Your task to perform on an android device: Search for "razer blade" on walmart, select the first entry, add it to the cart, then select checkout. Image 0: 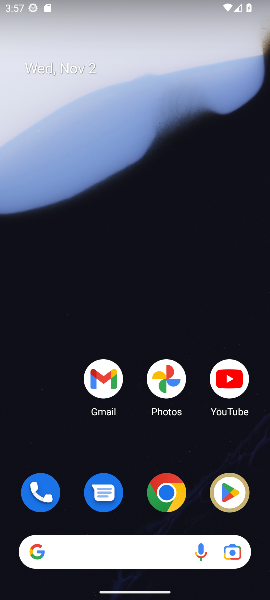
Step 0: click (167, 493)
Your task to perform on an android device: Search for "razer blade" on walmart, select the first entry, add it to the cart, then select checkout. Image 1: 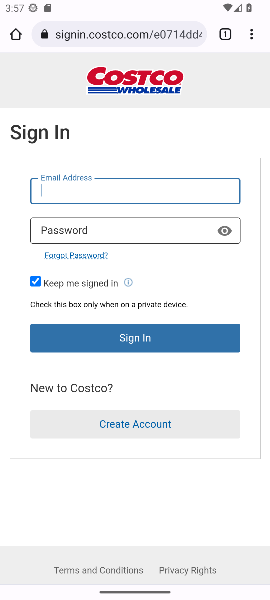
Step 1: click (128, 23)
Your task to perform on an android device: Search for "razer blade" on walmart, select the first entry, add it to the cart, then select checkout. Image 2: 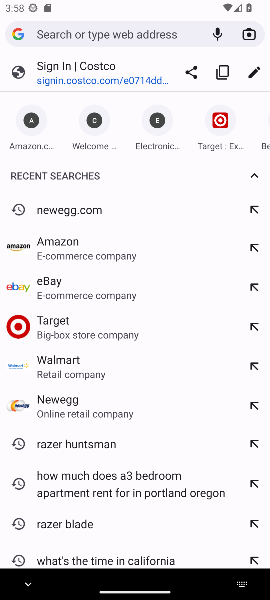
Step 2: type "walmart"
Your task to perform on an android device: Search for "razer blade" on walmart, select the first entry, add it to the cart, then select checkout. Image 3: 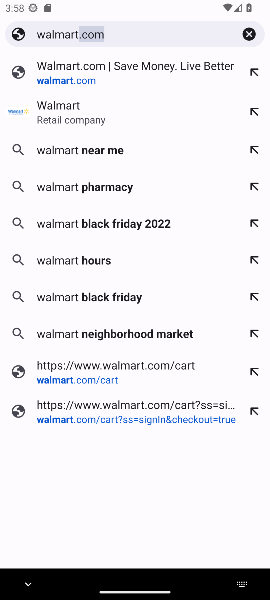
Step 3: click (64, 103)
Your task to perform on an android device: Search for "razer blade" on walmart, select the first entry, add it to the cart, then select checkout. Image 4: 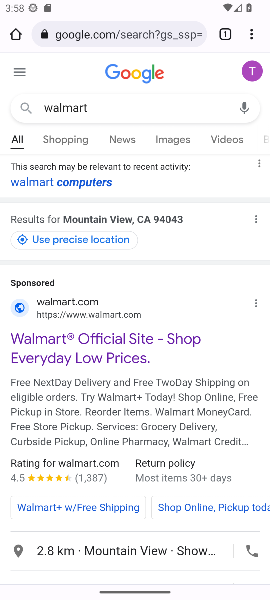
Step 4: click (95, 349)
Your task to perform on an android device: Search for "razer blade" on walmart, select the first entry, add it to the cart, then select checkout. Image 5: 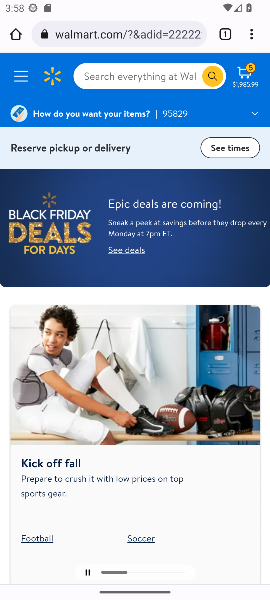
Step 5: click (114, 70)
Your task to perform on an android device: Search for "razer blade" on walmart, select the first entry, add it to the cart, then select checkout. Image 6: 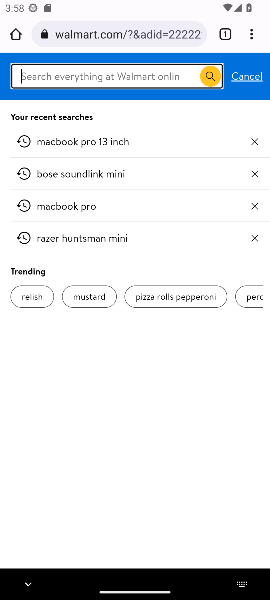
Step 6: type "razer blade"
Your task to perform on an android device: Search for "razer blade" on walmart, select the first entry, add it to the cart, then select checkout. Image 7: 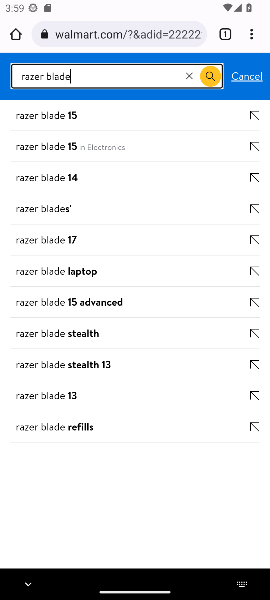
Step 7: click (27, 116)
Your task to perform on an android device: Search for "razer blade" on walmart, select the first entry, add it to the cart, then select checkout. Image 8: 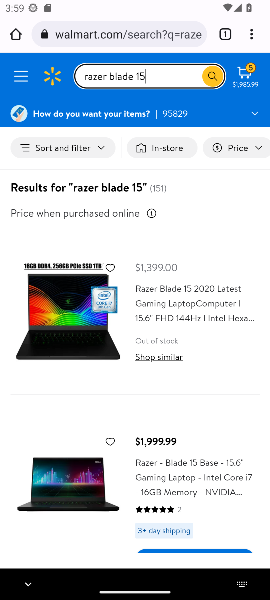
Step 8: click (174, 296)
Your task to perform on an android device: Search for "razer blade" on walmart, select the first entry, add it to the cart, then select checkout. Image 9: 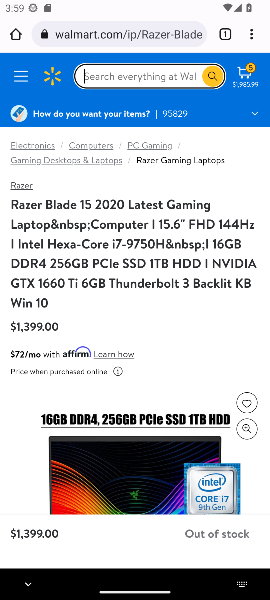
Step 9: drag from (188, 402) to (186, 231)
Your task to perform on an android device: Search for "razer blade" on walmart, select the first entry, add it to the cart, then select checkout. Image 10: 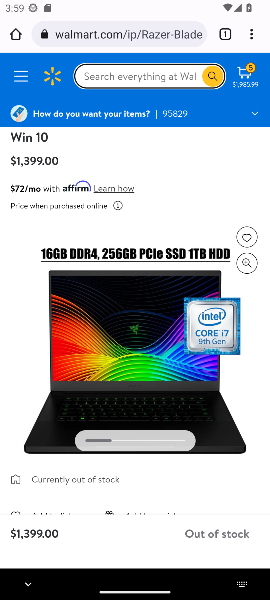
Step 10: drag from (226, 484) to (198, 224)
Your task to perform on an android device: Search for "razer blade" on walmart, select the first entry, add it to the cart, then select checkout. Image 11: 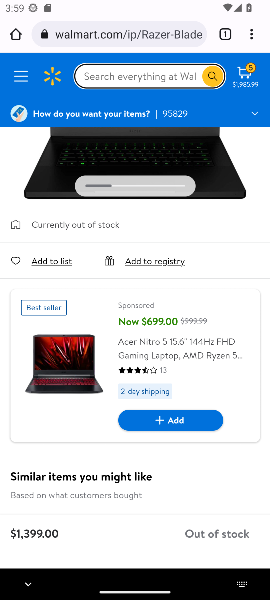
Step 11: drag from (200, 276) to (132, 60)
Your task to perform on an android device: Search for "razer blade" on walmart, select the first entry, add it to the cart, then select checkout. Image 12: 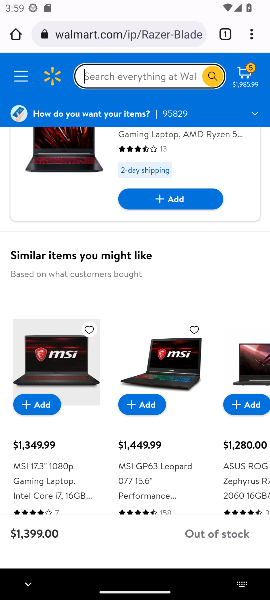
Step 12: press back button
Your task to perform on an android device: Search for "razer blade" on walmart, select the first entry, add it to the cart, then select checkout. Image 13: 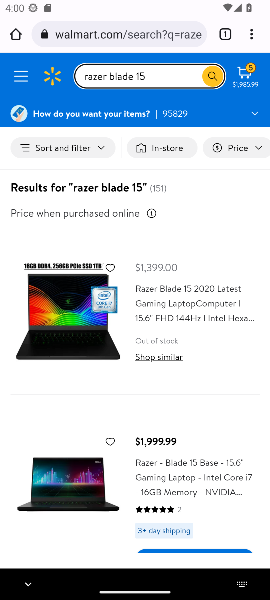
Step 13: drag from (236, 505) to (205, 243)
Your task to perform on an android device: Search for "razer blade" on walmart, select the first entry, add it to the cart, then select checkout. Image 14: 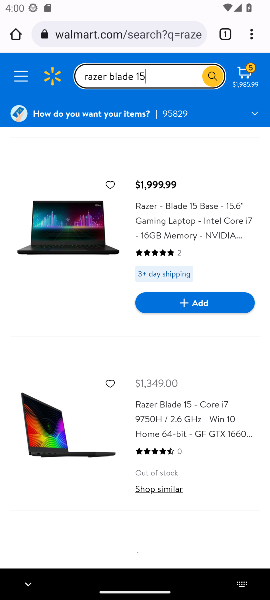
Step 14: click (183, 303)
Your task to perform on an android device: Search for "razer blade" on walmart, select the first entry, add it to the cart, then select checkout. Image 15: 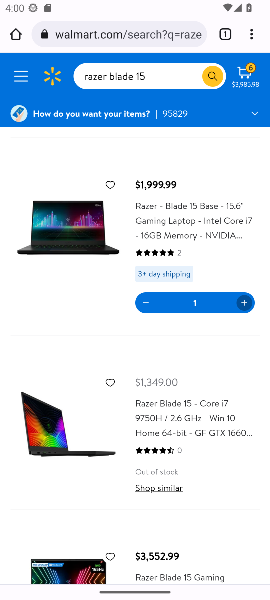
Step 15: click (246, 71)
Your task to perform on an android device: Search for "razer blade" on walmart, select the first entry, add it to the cart, then select checkout. Image 16: 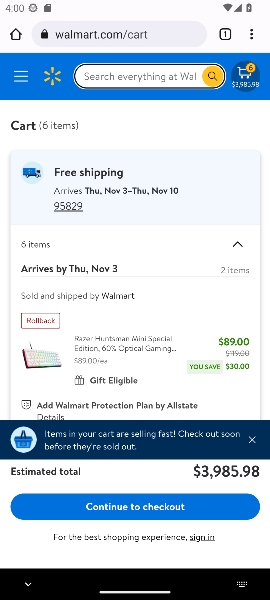
Step 16: click (157, 507)
Your task to perform on an android device: Search for "razer blade" on walmart, select the first entry, add it to the cart, then select checkout. Image 17: 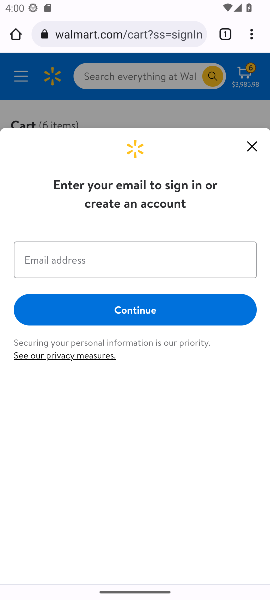
Step 17: task complete